Your task to perform on an android device: Go to calendar. Show me events next week Image 0: 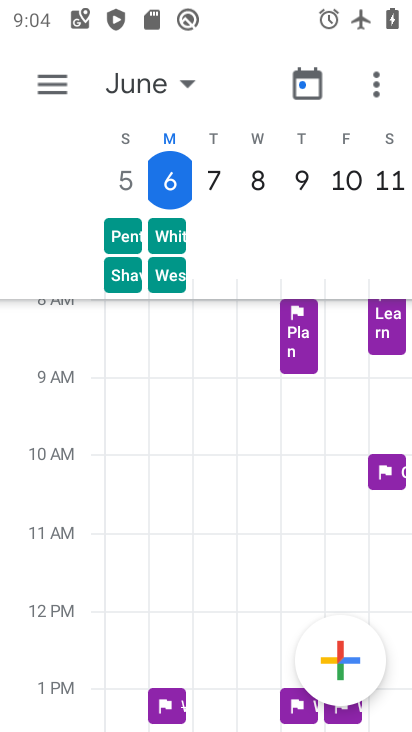
Step 0: press home button
Your task to perform on an android device: Go to calendar. Show me events next week Image 1: 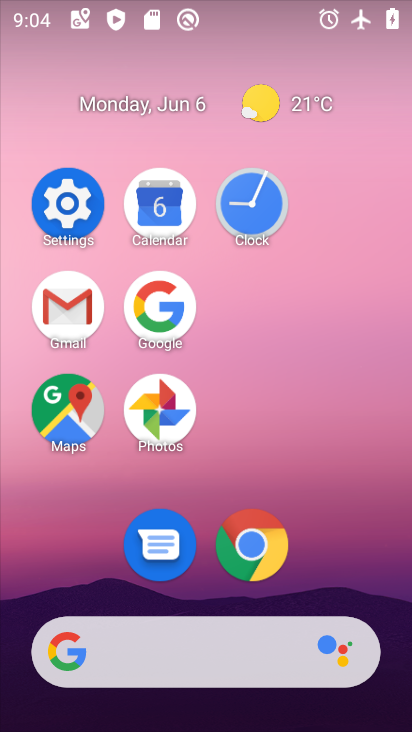
Step 1: click (165, 201)
Your task to perform on an android device: Go to calendar. Show me events next week Image 2: 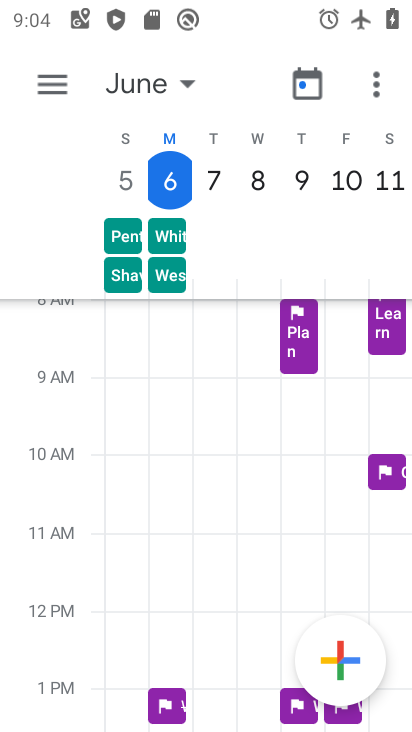
Step 2: task complete